Your task to perform on an android device: find photos in the google photos app Image 0: 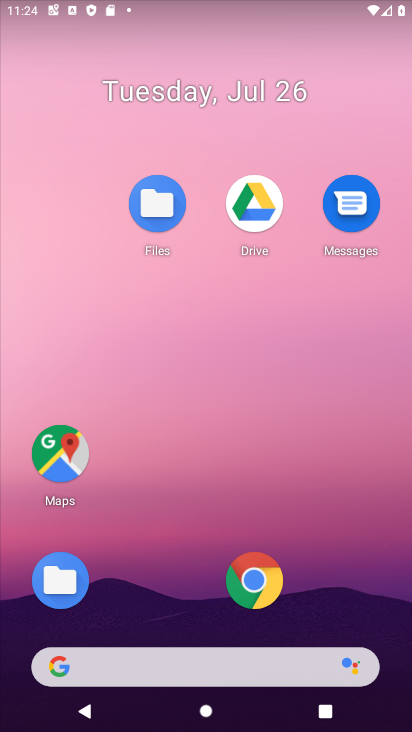
Step 0: drag from (196, 594) to (194, 165)
Your task to perform on an android device: find photos in the google photos app Image 1: 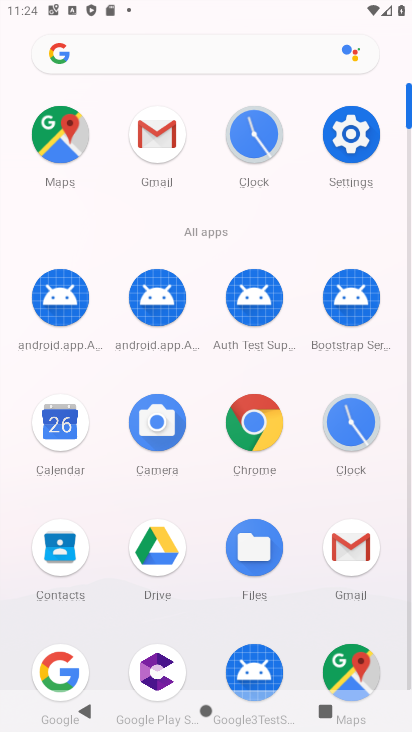
Step 1: drag from (202, 630) to (212, 228)
Your task to perform on an android device: find photos in the google photos app Image 2: 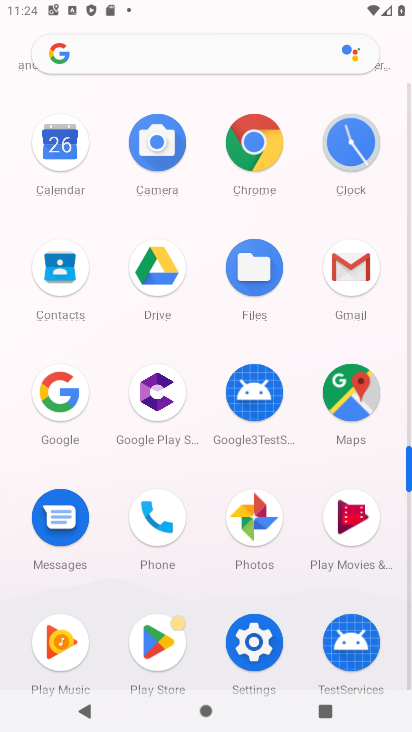
Step 2: click (261, 525)
Your task to perform on an android device: find photos in the google photos app Image 3: 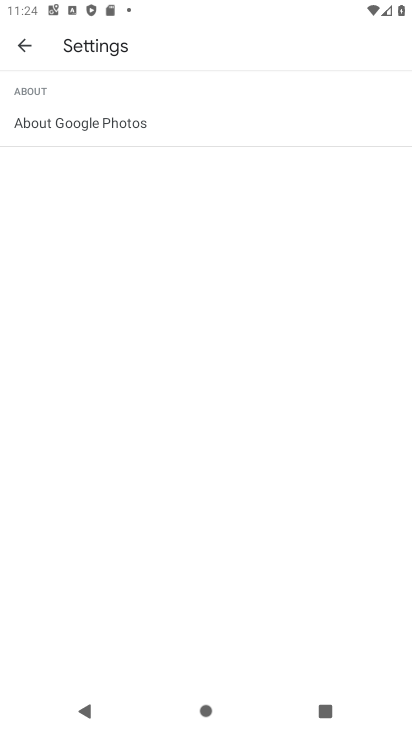
Step 3: click (17, 35)
Your task to perform on an android device: find photos in the google photos app Image 4: 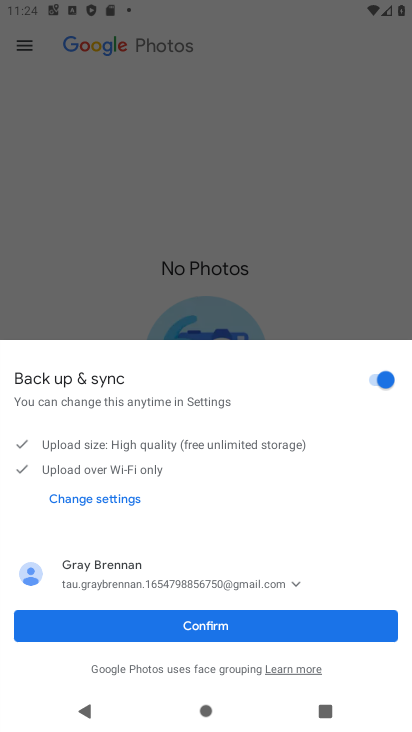
Step 4: click (255, 615)
Your task to perform on an android device: find photos in the google photos app Image 5: 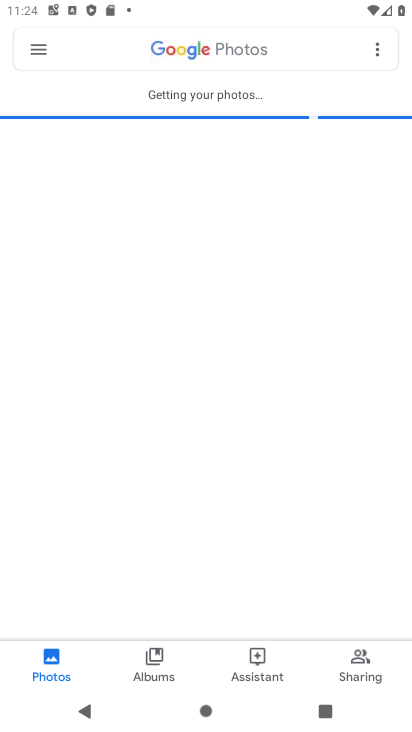
Step 5: task complete